Your task to perform on an android device: change the clock display to analog Image 0: 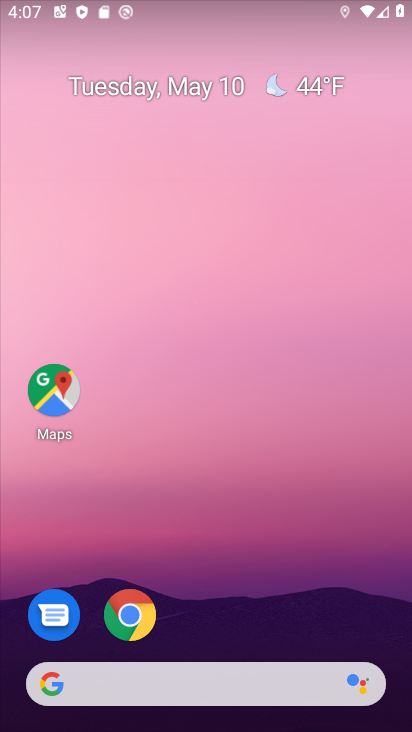
Step 0: drag from (214, 686) to (215, 134)
Your task to perform on an android device: change the clock display to analog Image 1: 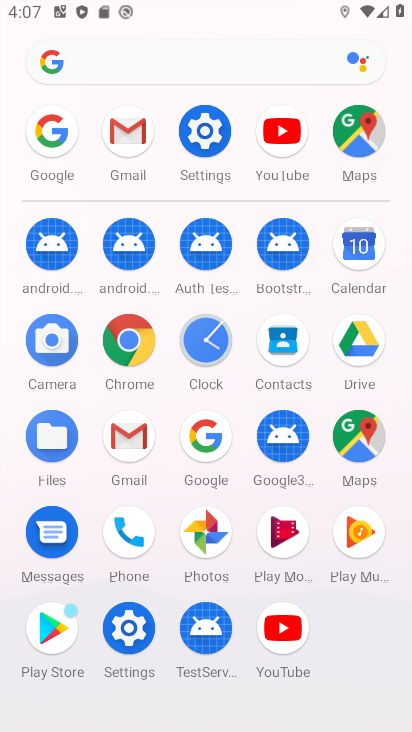
Step 1: click (205, 340)
Your task to perform on an android device: change the clock display to analog Image 2: 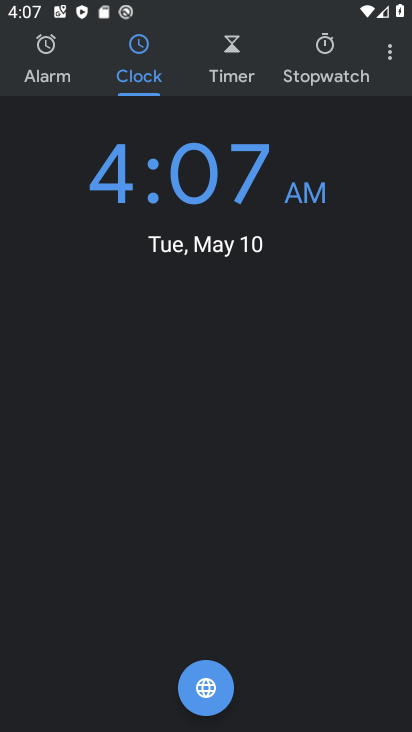
Step 2: click (391, 54)
Your task to perform on an android device: change the clock display to analog Image 3: 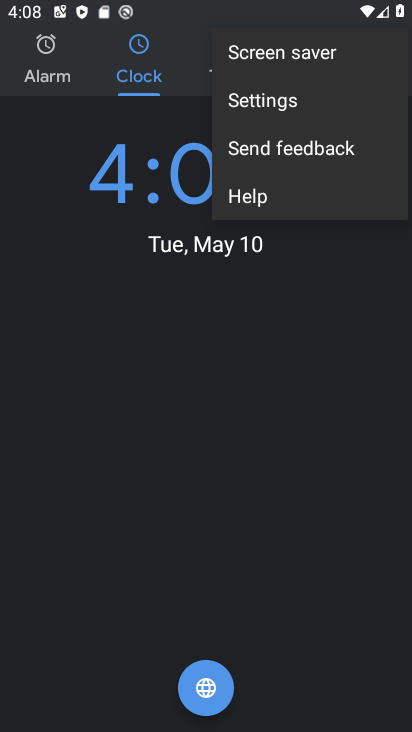
Step 3: click (259, 100)
Your task to perform on an android device: change the clock display to analog Image 4: 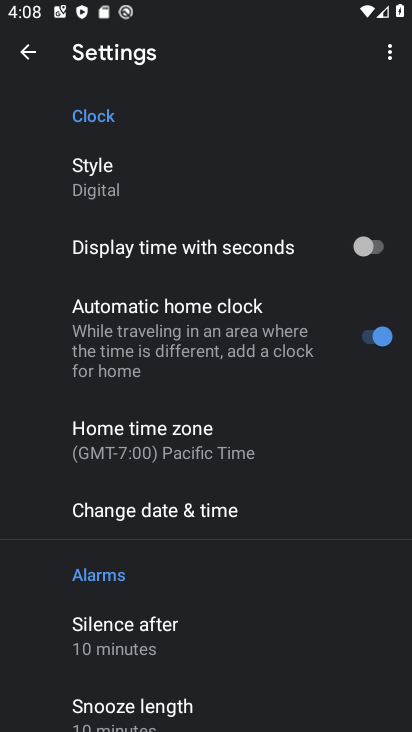
Step 4: click (96, 175)
Your task to perform on an android device: change the clock display to analog Image 5: 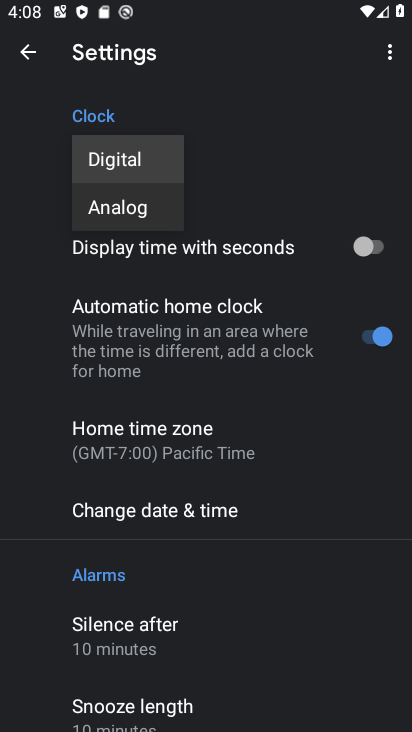
Step 5: click (122, 206)
Your task to perform on an android device: change the clock display to analog Image 6: 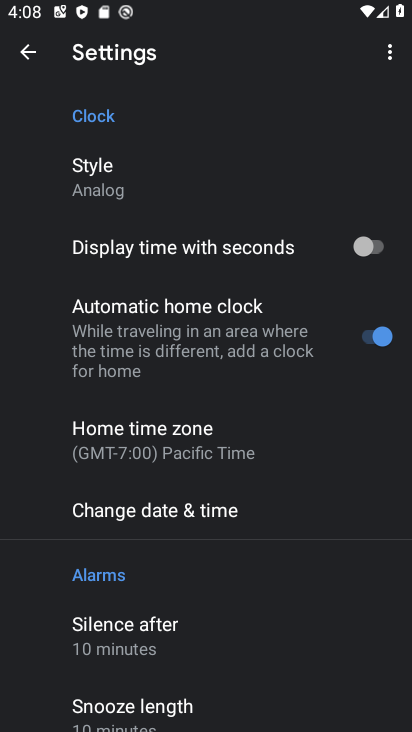
Step 6: task complete